Your task to perform on an android device: remove spam from my inbox in the gmail app Image 0: 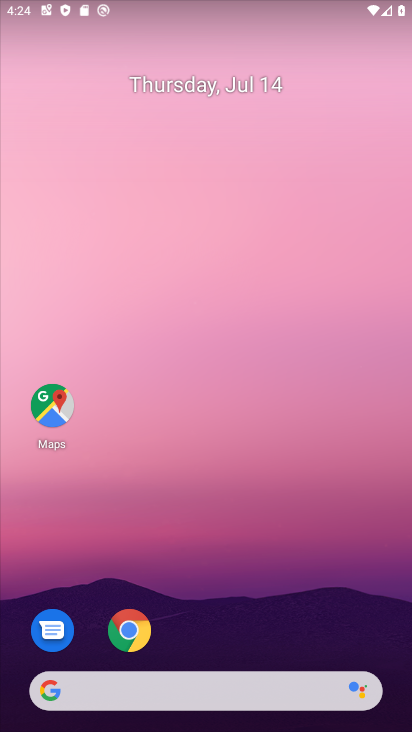
Step 0: drag from (165, 695) to (242, 164)
Your task to perform on an android device: remove spam from my inbox in the gmail app Image 1: 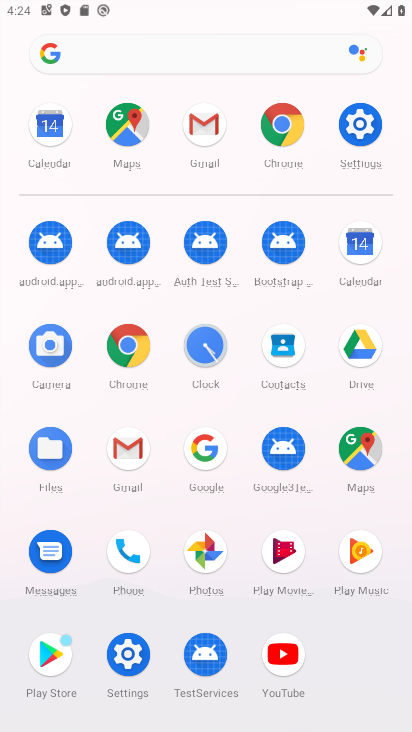
Step 1: click (132, 444)
Your task to perform on an android device: remove spam from my inbox in the gmail app Image 2: 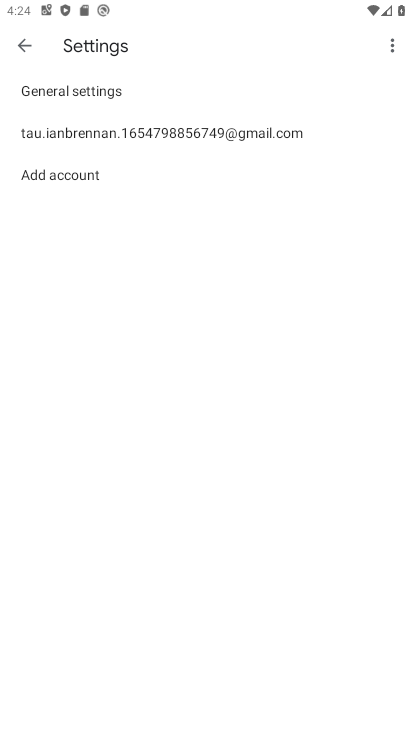
Step 2: press back button
Your task to perform on an android device: remove spam from my inbox in the gmail app Image 3: 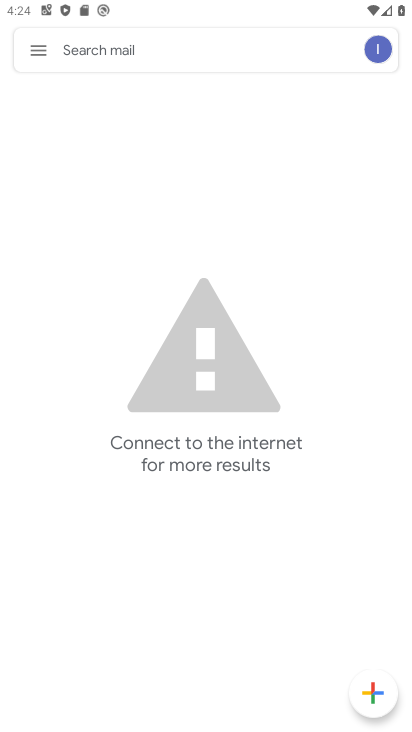
Step 3: press home button
Your task to perform on an android device: remove spam from my inbox in the gmail app Image 4: 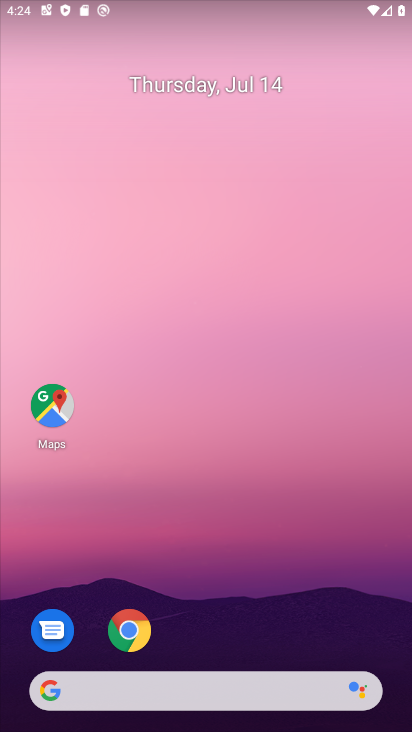
Step 4: drag from (293, 676) to (375, 1)
Your task to perform on an android device: remove spam from my inbox in the gmail app Image 5: 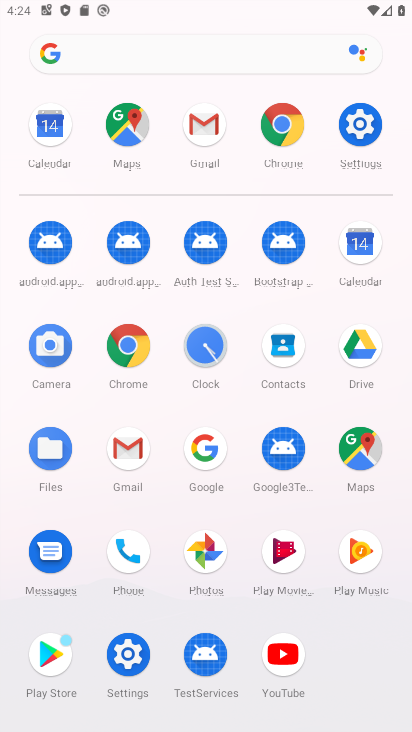
Step 5: click (139, 443)
Your task to perform on an android device: remove spam from my inbox in the gmail app Image 6: 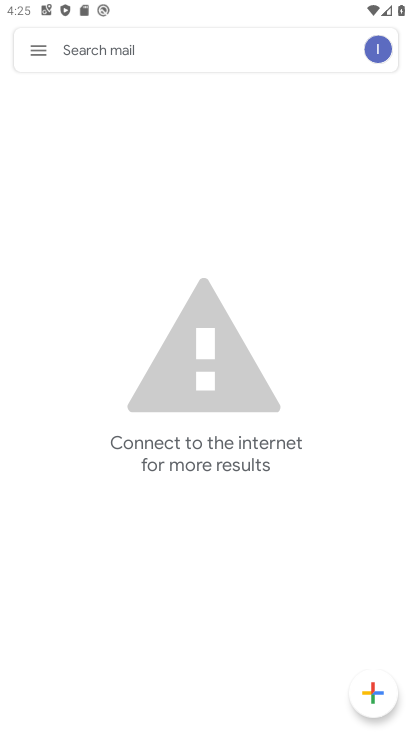
Step 6: click (39, 54)
Your task to perform on an android device: remove spam from my inbox in the gmail app Image 7: 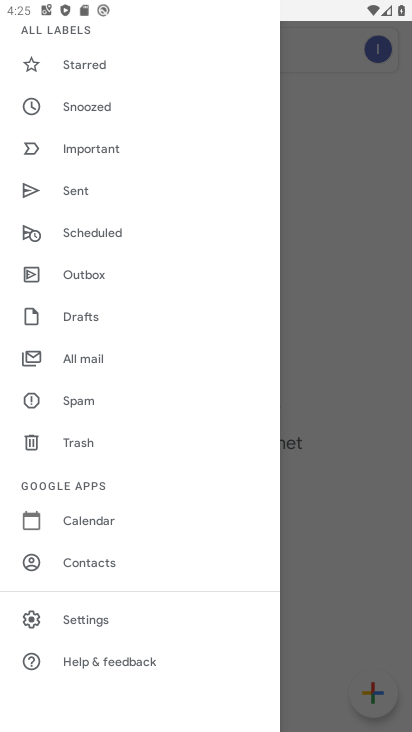
Step 7: click (75, 399)
Your task to perform on an android device: remove spam from my inbox in the gmail app Image 8: 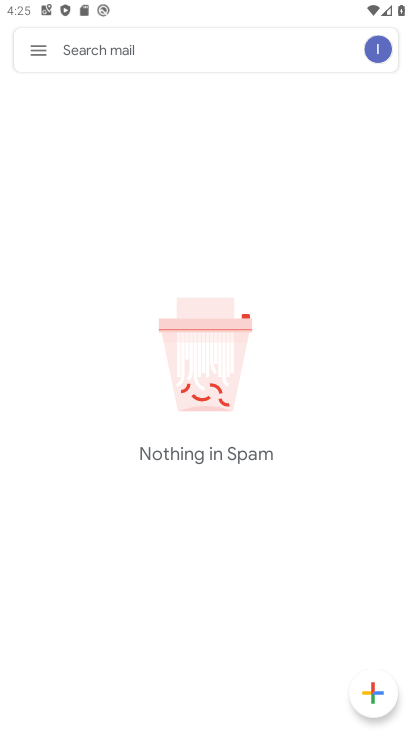
Step 8: task complete